Your task to perform on an android device: empty trash in google photos Image 0: 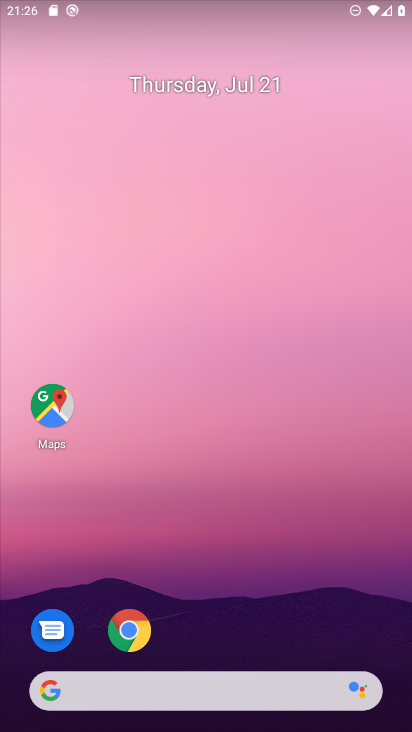
Step 0: drag from (373, 636) to (203, 103)
Your task to perform on an android device: empty trash in google photos Image 1: 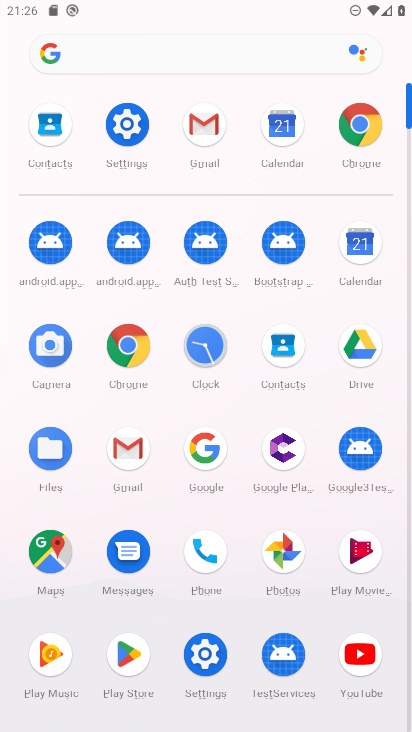
Step 1: click (280, 555)
Your task to perform on an android device: empty trash in google photos Image 2: 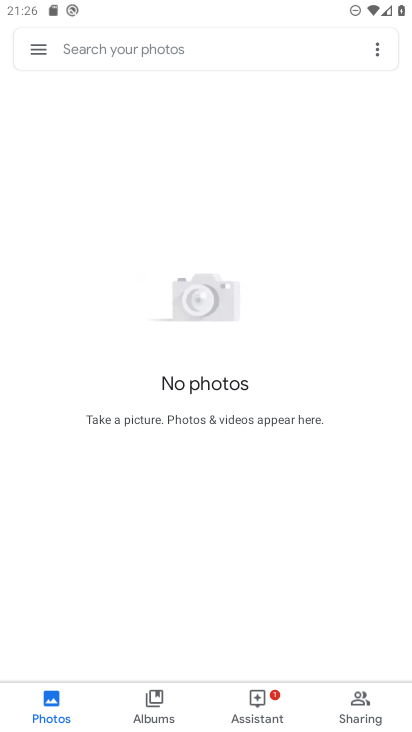
Step 2: click (34, 46)
Your task to perform on an android device: empty trash in google photos Image 3: 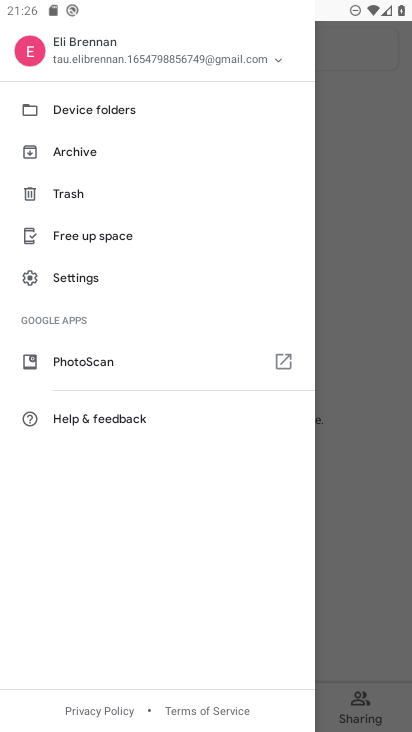
Step 3: click (79, 186)
Your task to perform on an android device: empty trash in google photos Image 4: 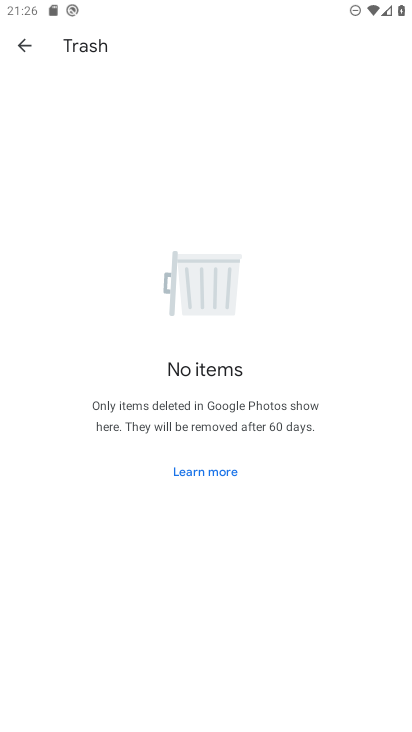
Step 4: task complete